Your task to perform on an android device: see creations saved in the google photos Image 0: 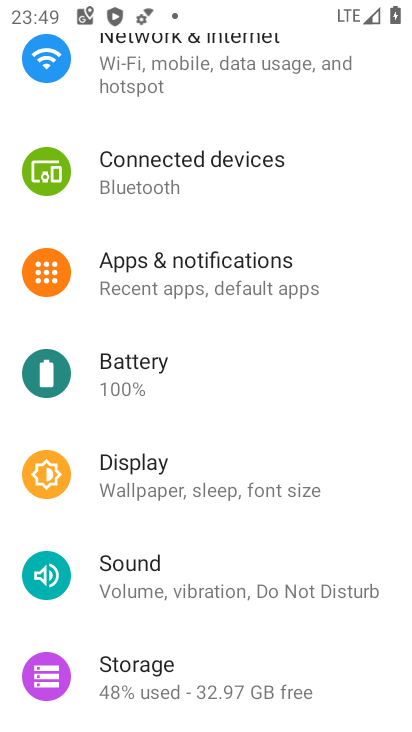
Step 0: press home button
Your task to perform on an android device: see creations saved in the google photos Image 1: 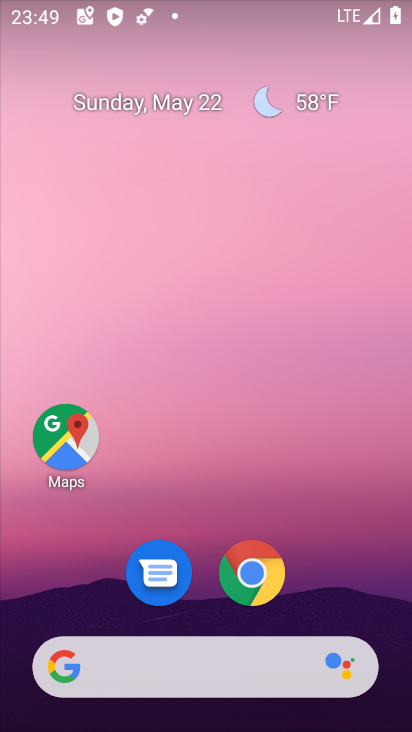
Step 1: drag from (211, 614) to (264, 8)
Your task to perform on an android device: see creations saved in the google photos Image 2: 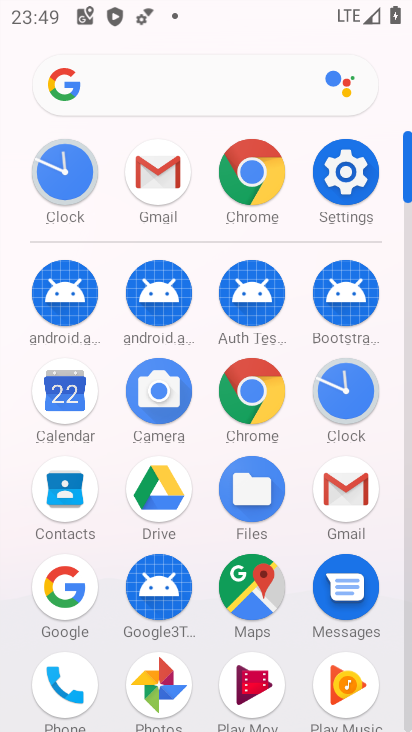
Step 2: drag from (219, 559) to (208, 169)
Your task to perform on an android device: see creations saved in the google photos Image 3: 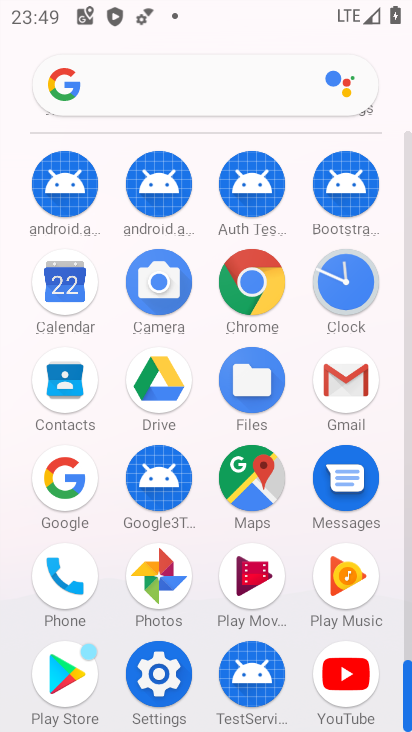
Step 3: click (158, 571)
Your task to perform on an android device: see creations saved in the google photos Image 4: 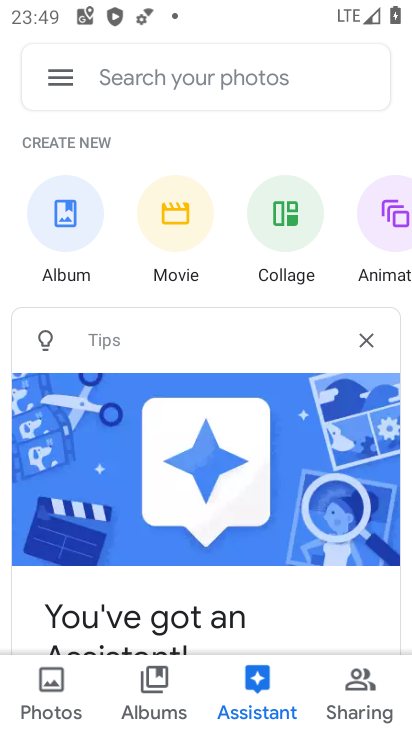
Step 4: click (44, 692)
Your task to perform on an android device: see creations saved in the google photos Image 5: 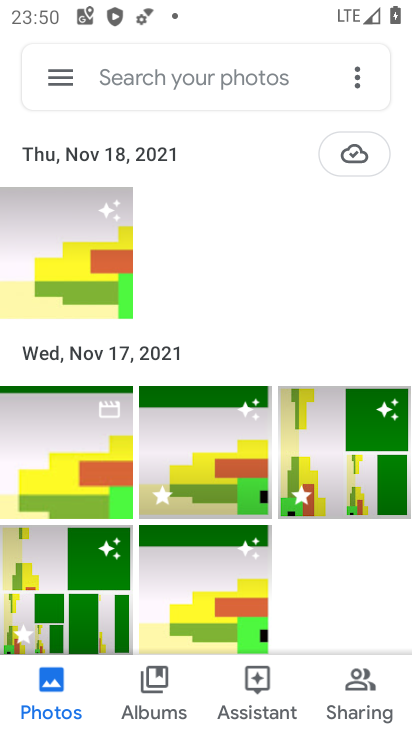
Step 5: click (195, 69)
Your task to perform on an android device: see creations saved in the google photos Image 6: 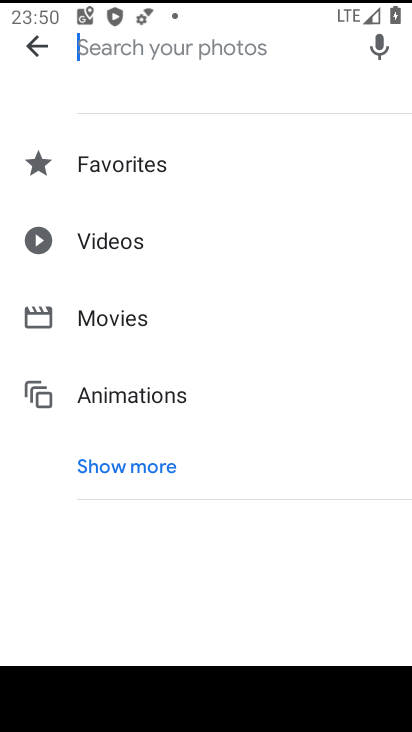
Step 6: type "creations"
Your task to perform on an android device: see creations saved in the google photos Image 7: 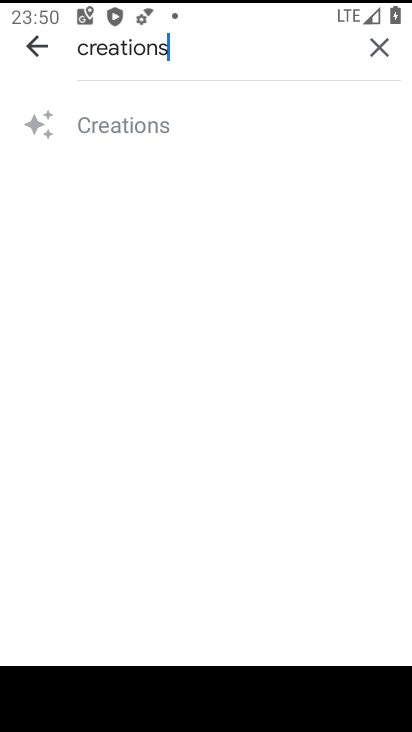
Step 7: click (87, 122)
Your task to perform on an android device: see creations saved in the google photos Image 8: 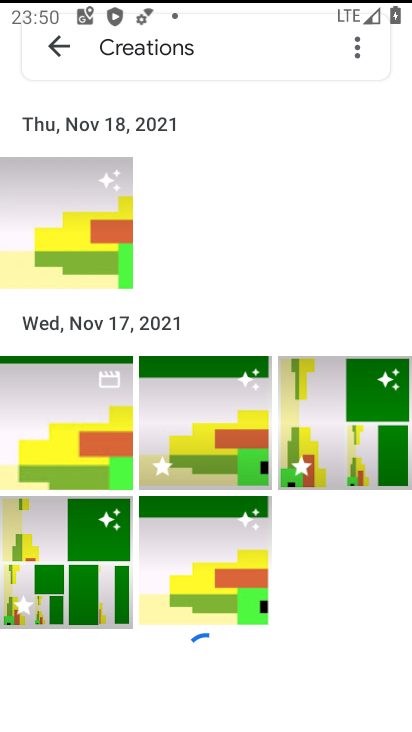
Step 8: task complete